Your task to perform on an android device: Go to Yahoo.com Image 0: 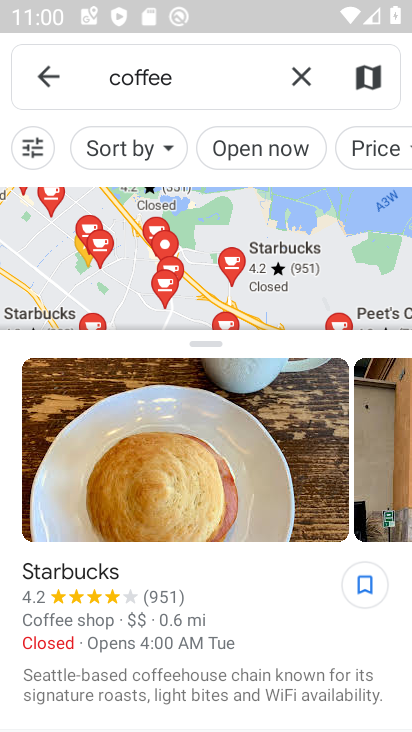
Step 0: press back button
Your task to perform on an android device: Go to Yahoo.com Image 1: 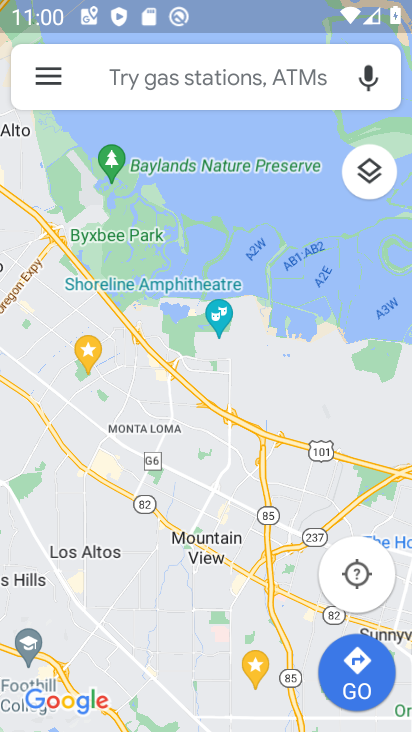
Step 1: press home button
Your task to perform on an android device: Go to Yahoo.com Image 2: 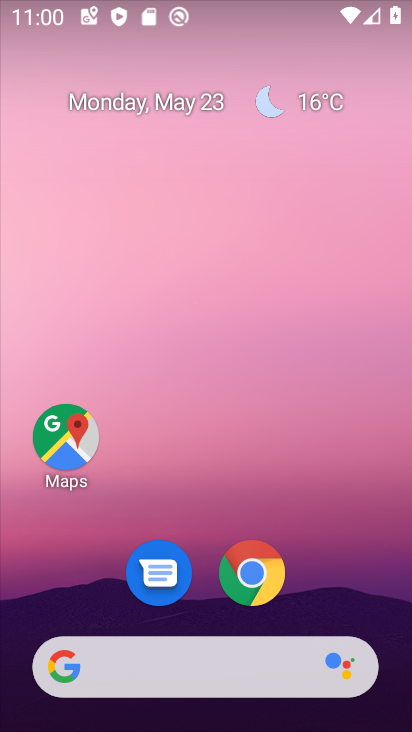
Step 2: drag from (321, 563) to (246, 19)
Your task to perform on an android device: Go to Yahoo.com Image 3: 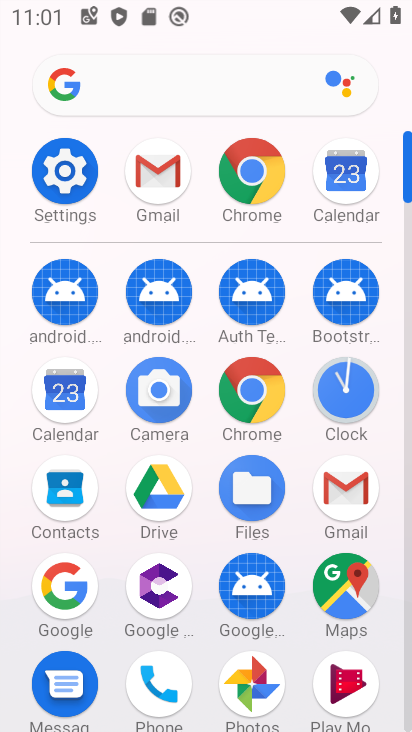
Step 3: click (241, 164)
Your task to perform on an android device: Go to Yahoo.com Image 4: 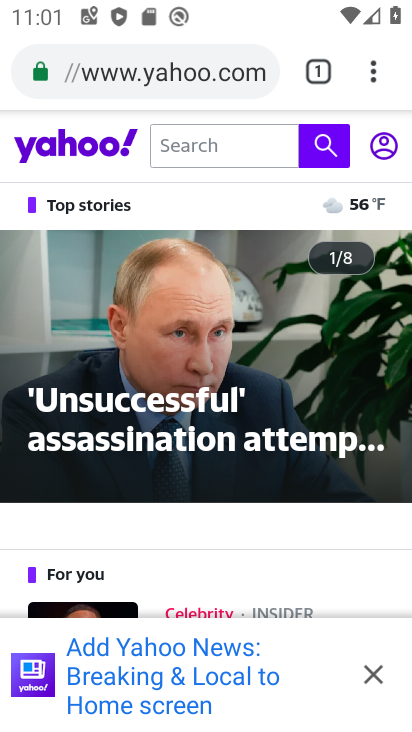
Step 4: click (191, 52)
Your task to perform on an android device: Go to Yahoo.com Image 5: 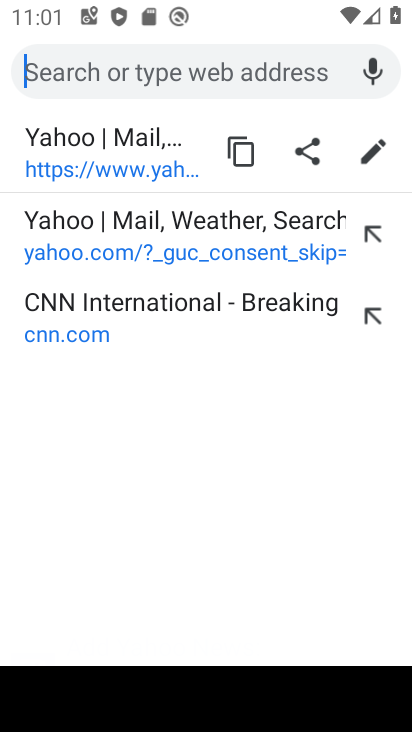
Step 5: click (94, 142)
Your task to perform on an android device: Go to Yahoo.com Image 6: 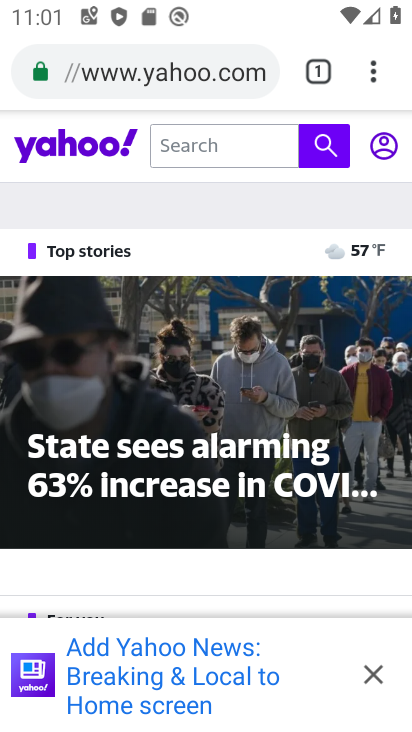
Step 6: task complete